Your task to perform on an android device: toggle translation in the chrome app Image 0: 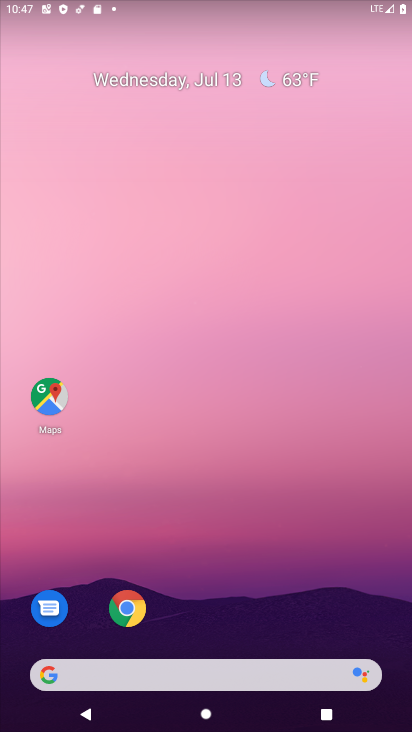
Step 0: click (121, 603)
Your task to perform on an android device: toggle translation in the chrome app Image 1: 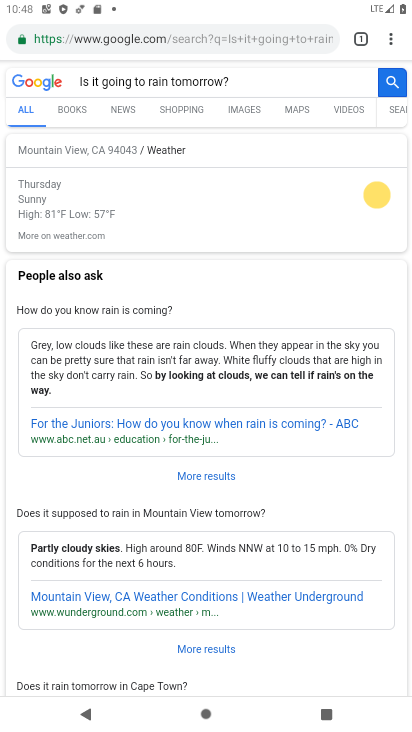
Step 1: click (401, 45)
Your task to perform on an android device: toggle translation in the chrome app Image 2: 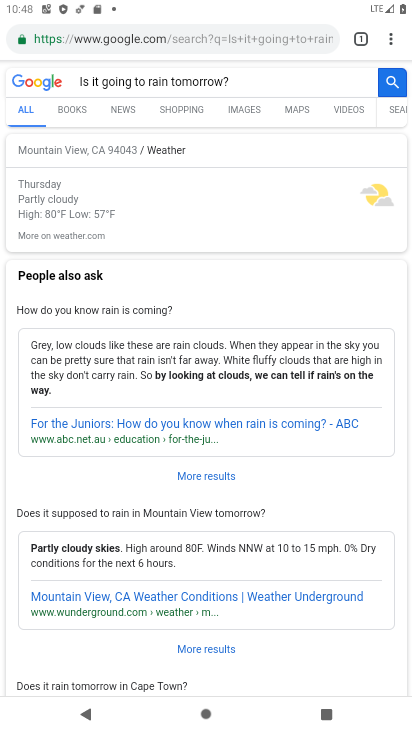
Step 2: drag from (386, 29) to (259, 444)
Your task to perform on an android device: toggle translation in the chrome app Image 3: 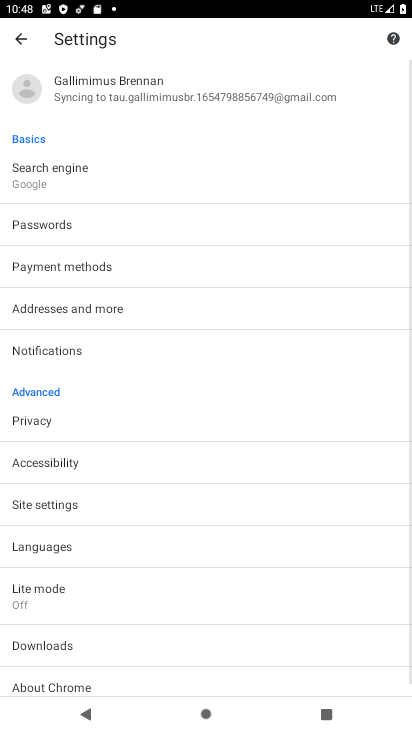
Step 3: click (95, 549)
Your task to perform on an android device: toggle translation in the chrome app Image 4: 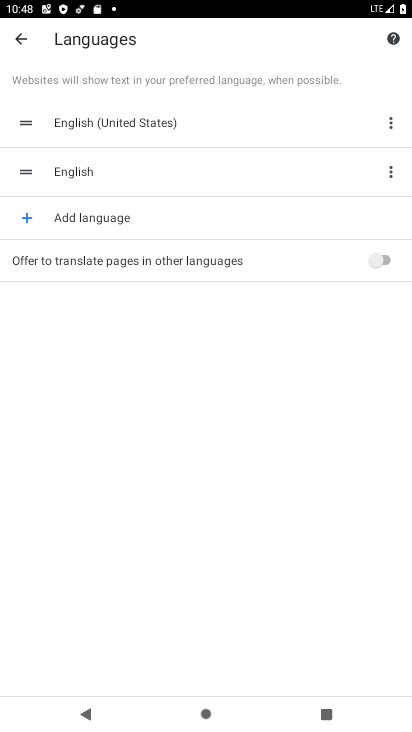
Step 4: click (343, 262)
Your task to perform on an android device: toggle translation in the chrome app Image 5: 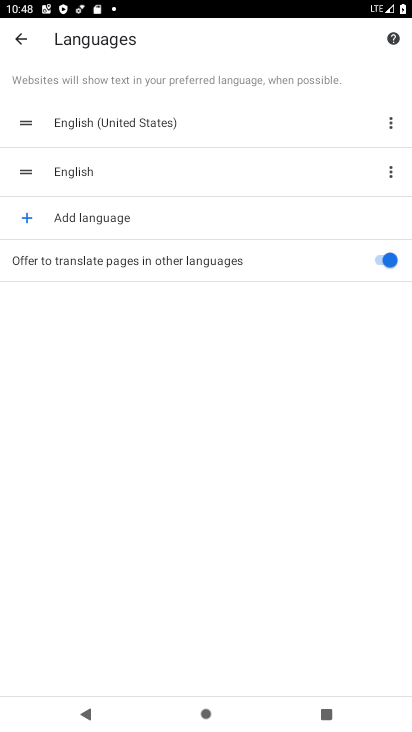
Step 5: task complete